Your task to perform on an android device: change keyboard looks Image 0: 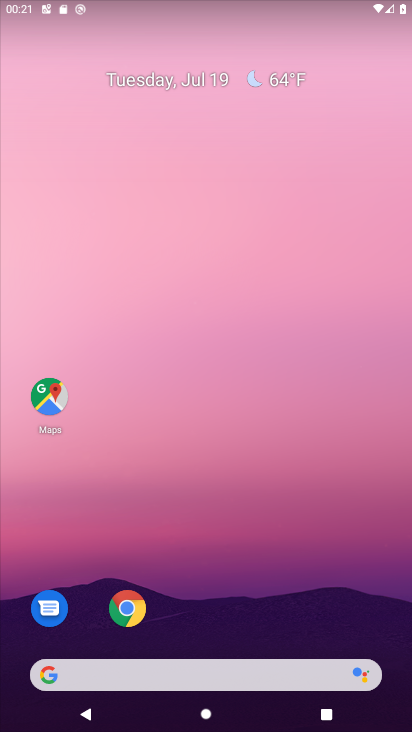
Step 0: drag from (236, 553) to (290, 83)
Your task to perform on an android device: change keyboard looks Image 1: 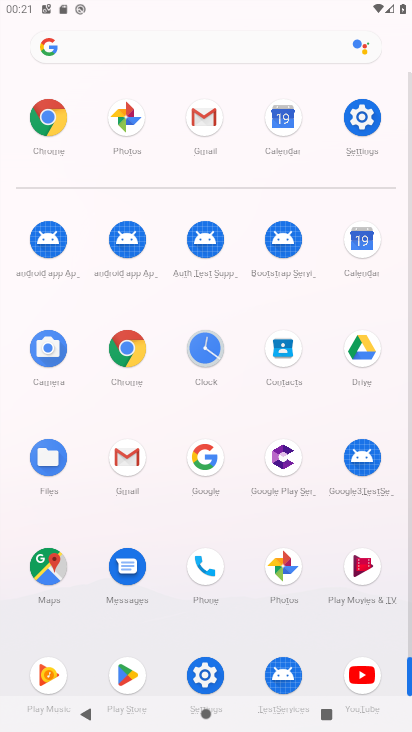
Step 1: drag from (252, 208) to (244, 4)
Your task to perform on an android device: change keyboard looks Image 2: 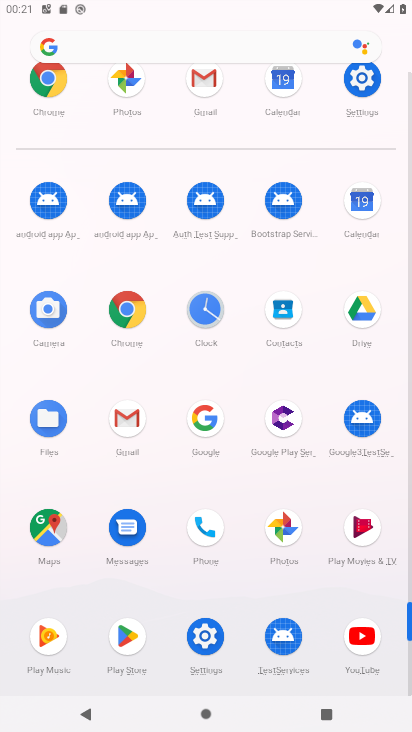
Step 2: click (216, 637)
Your task to perform on an android device: change keyboard looks Image 3: 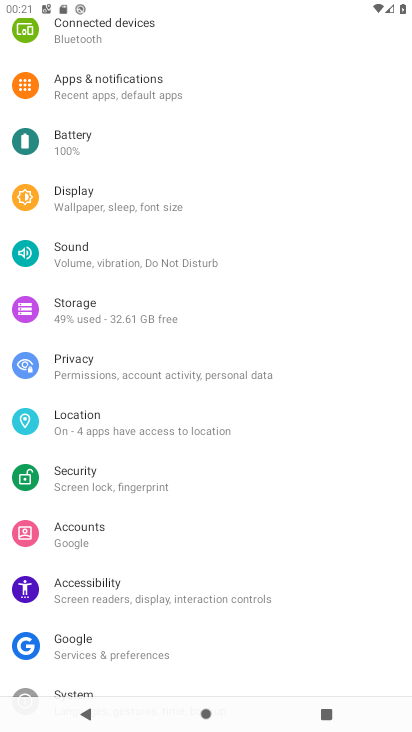
Step 3: drag from (242, 228) to (206, 655)
Your task to perform on an android device: change keyboard looks Image 4: 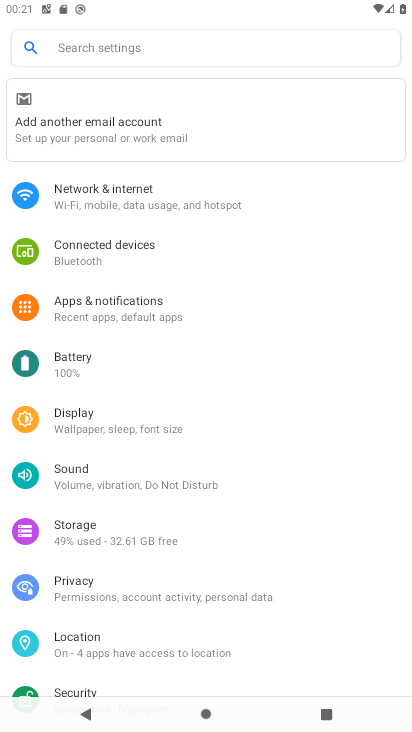
Step 4: click (144, 52)
Your task to perform on an android device: change keyboard looks Image 5: 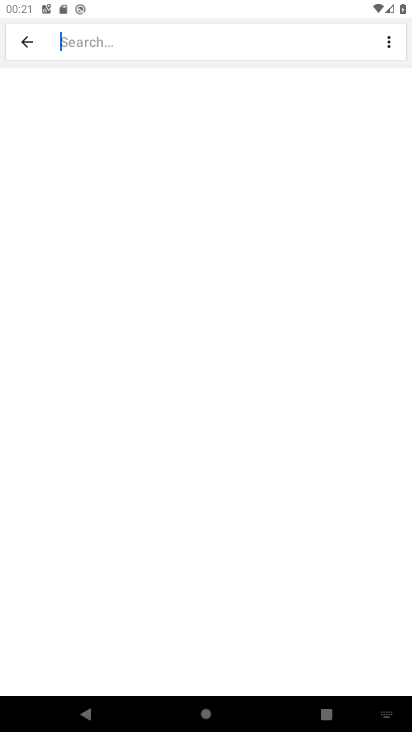
Step 5: type "keyboard"
Your task to perform on an android device: change keyboard looks Image 6: 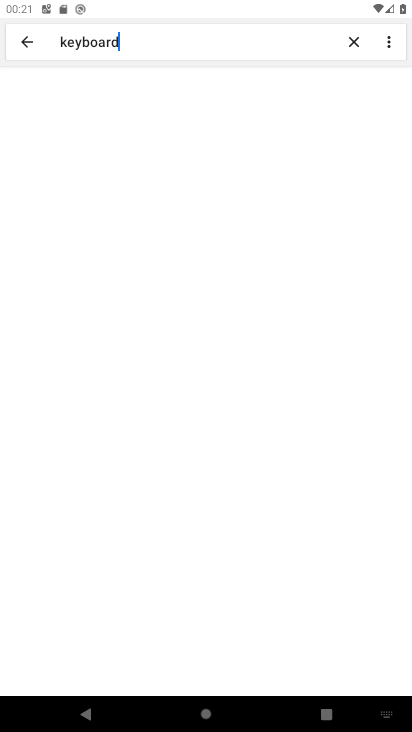
Step 6: type ""
Your task to perform on an android device: change keyboard looks Image 7: 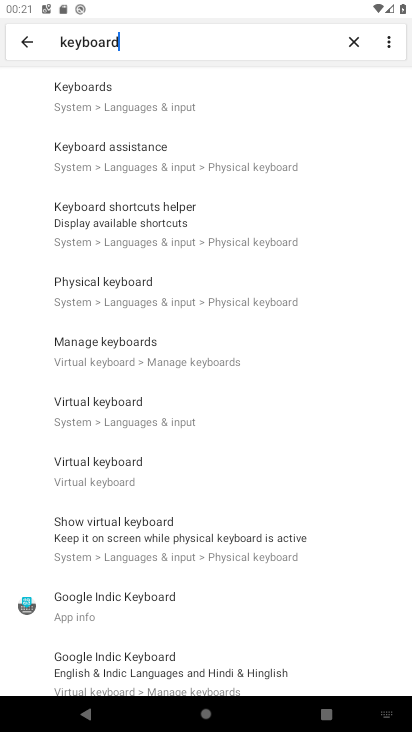
Step 7: click (175, 94)
Your task to perform on an android device: change keyboard looks Image 8: 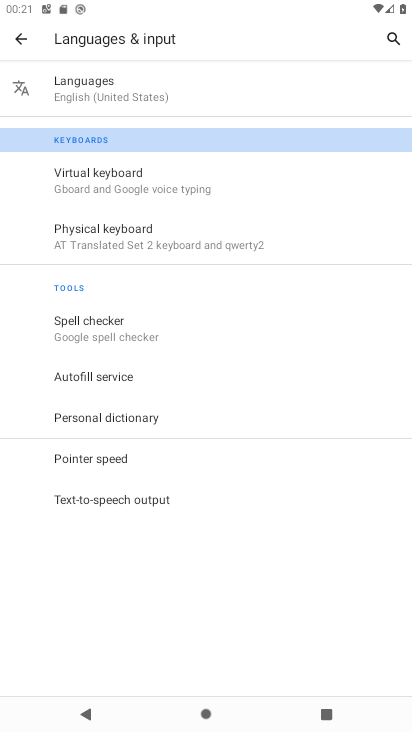
Step 8: task complete